Your task to perform on an android device: What's the news in Trinidad and Tobago? Image 0: 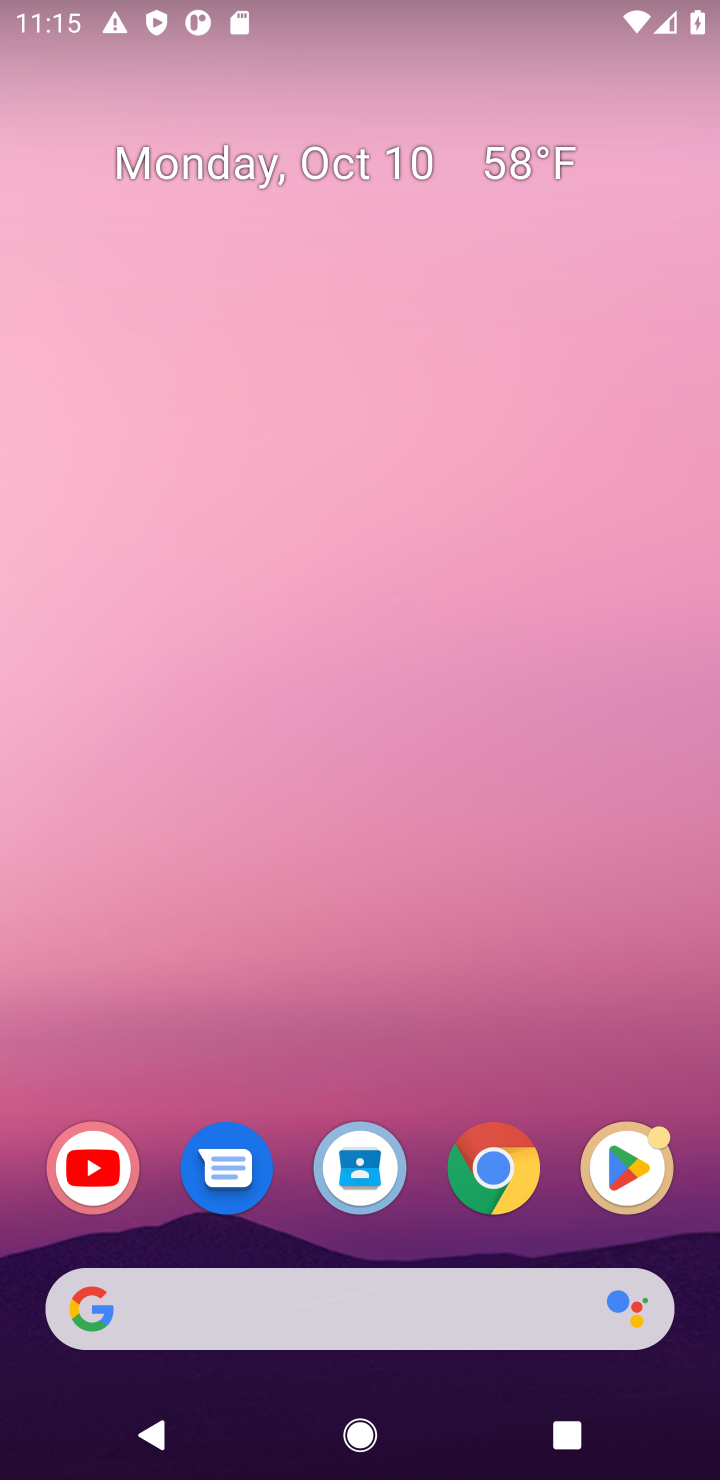
Step 0: click (264, 1315)
Your task to perform on an android device: What's the news in Trinidad and Tobago? Image 1: 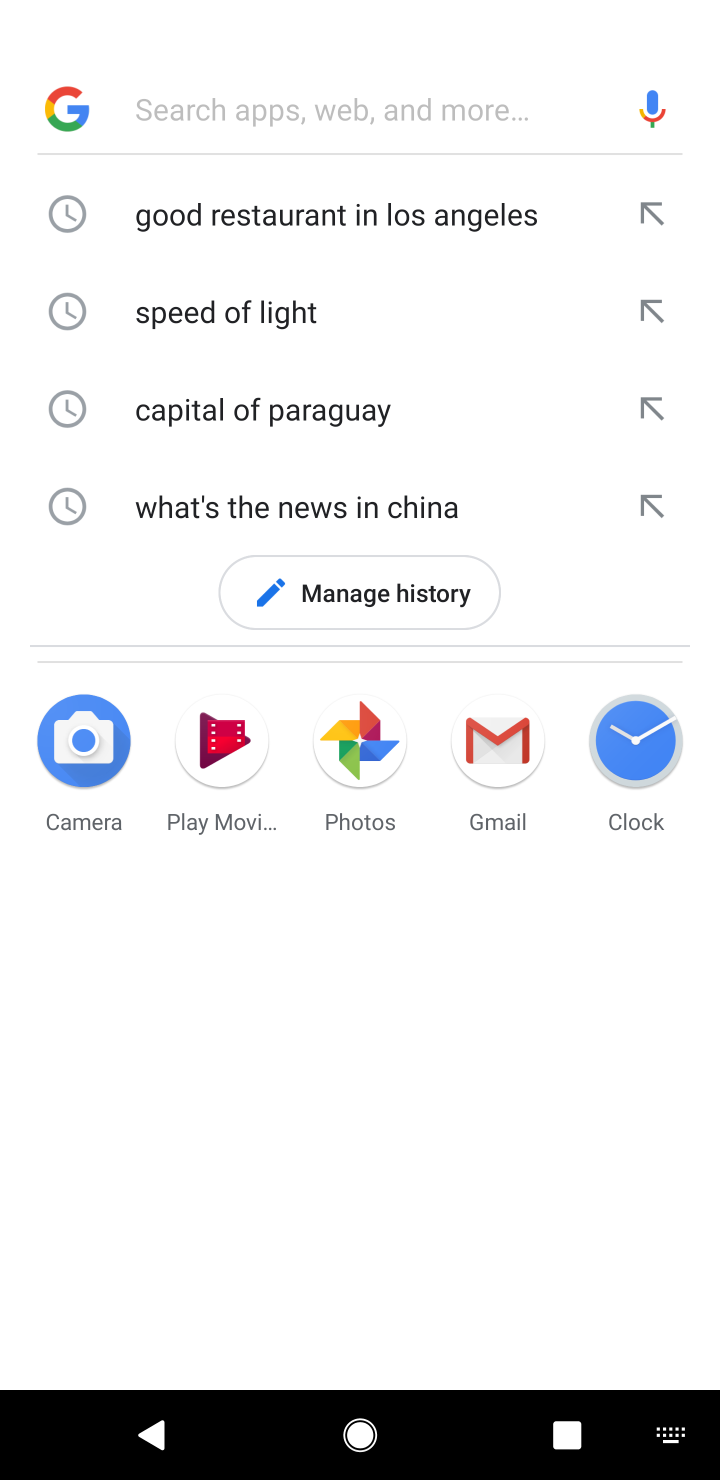
Step 1: type "news in Trinidad and Tobago"
Your task to perform on an android device: What's the news in Trinidad and Tobago? Image 2: 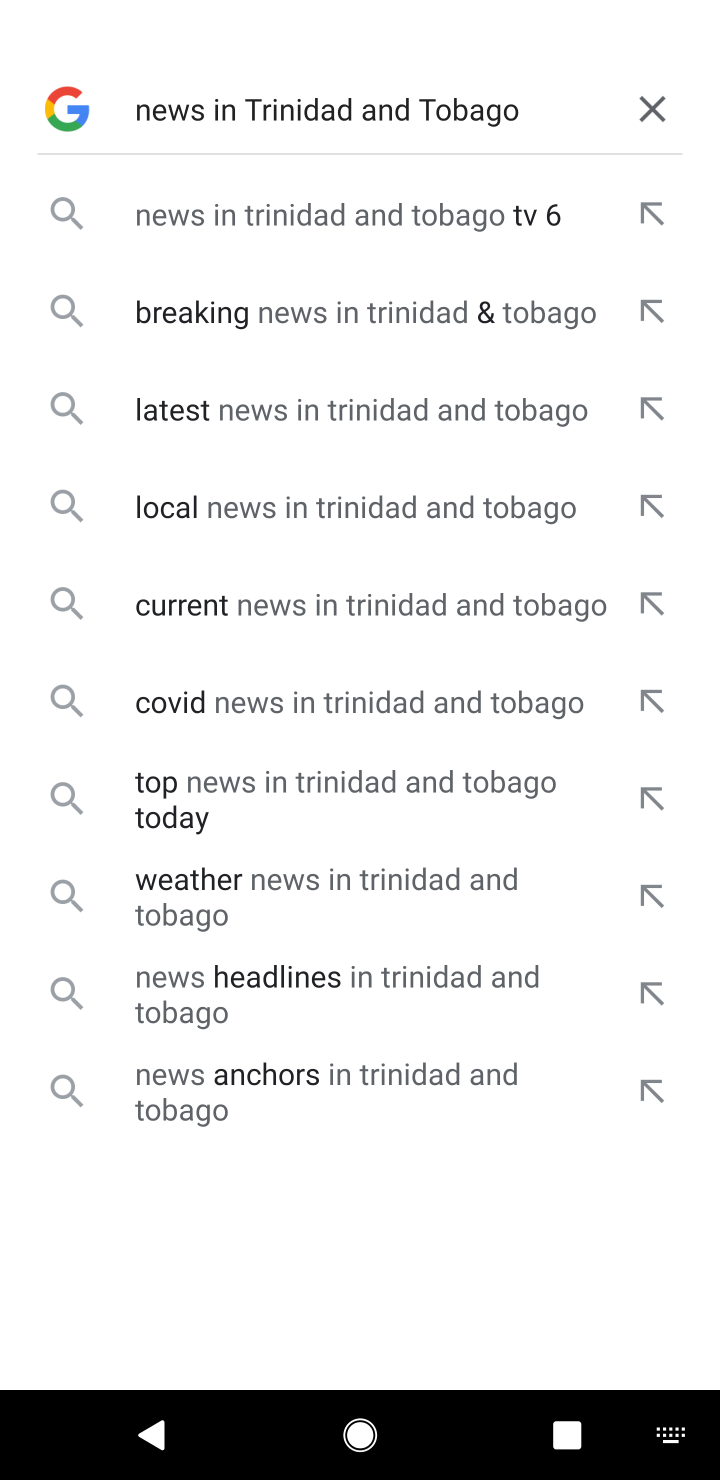
Step 2: type ""
Your task to perform on an android device: What's the news in Trinidad and Tobago? Image 3: 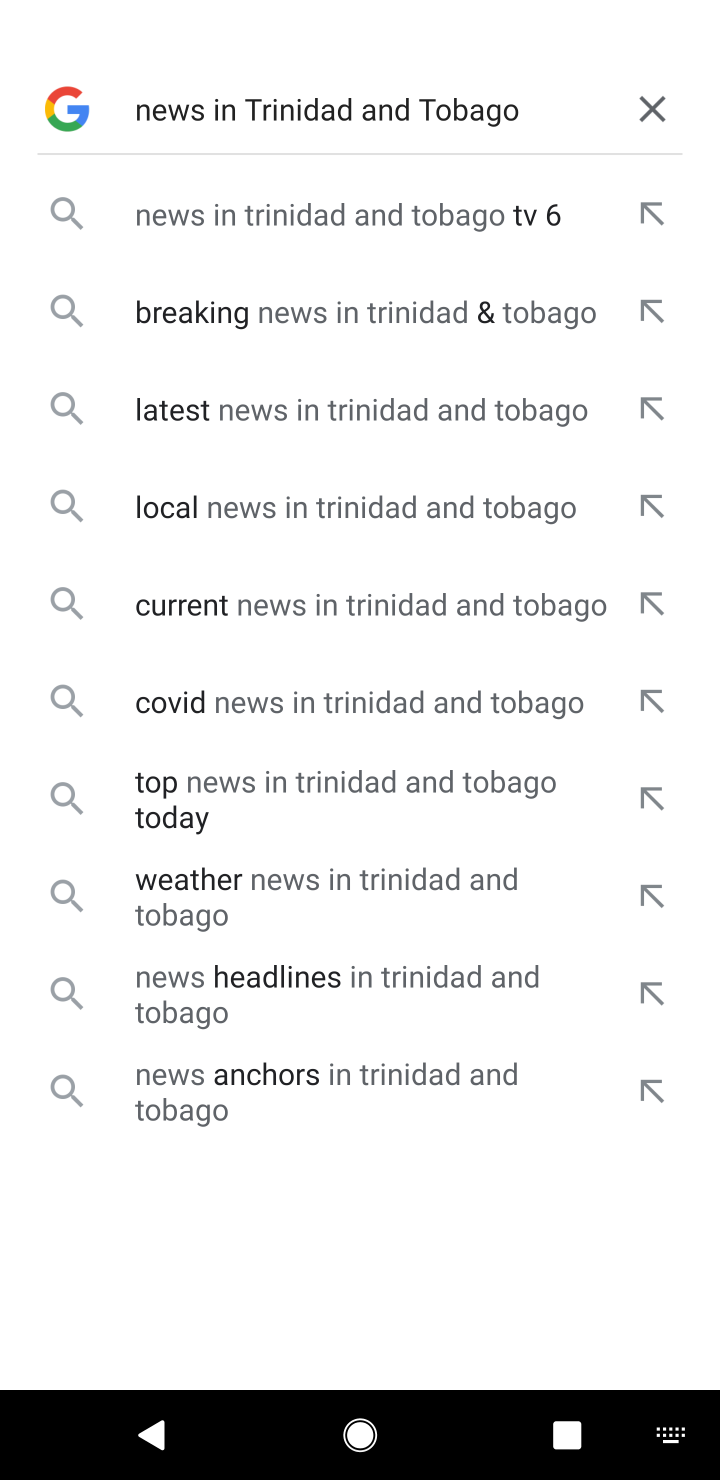
Step 3: click (197, 226)
Your task to perform on an android device: What's the news in Trinidad and Tobago? Image 4: 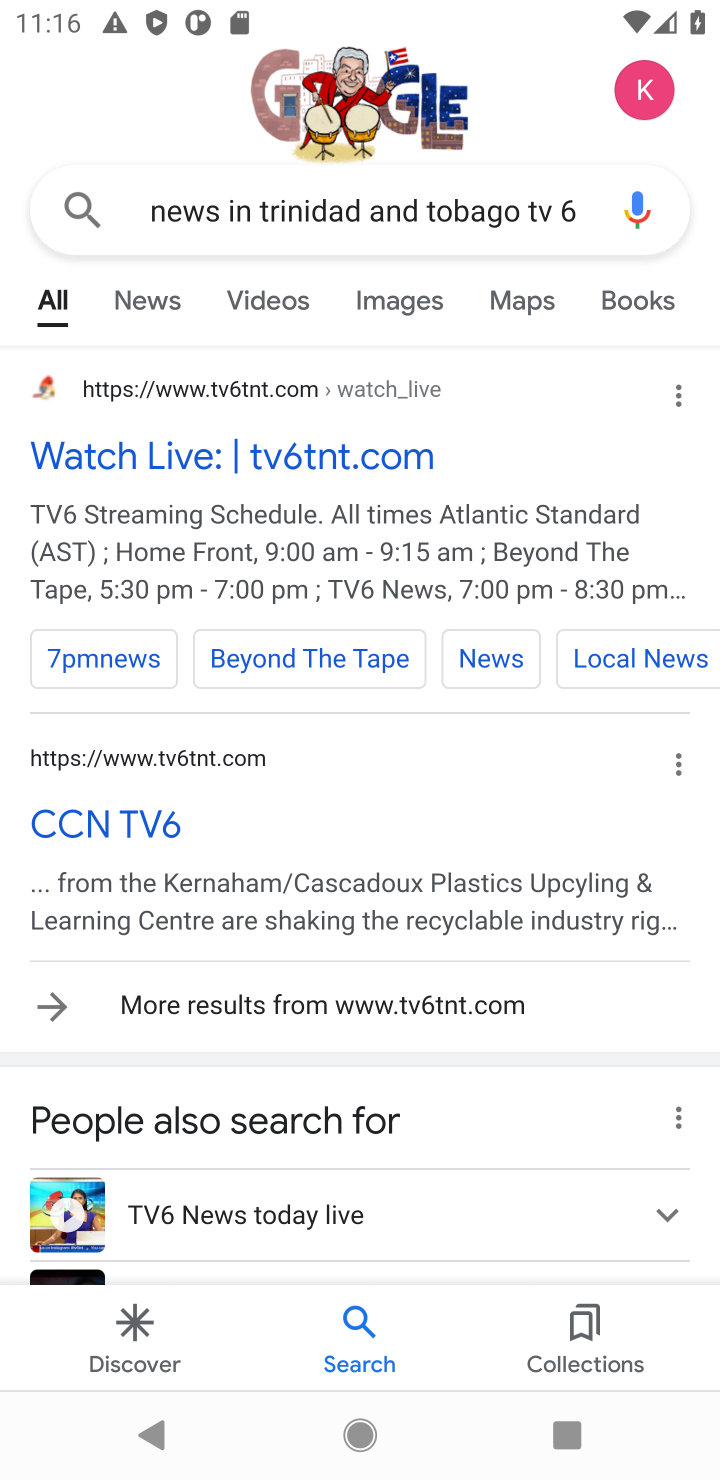
Step 4: click (143, 321)
Your task to perform on an android device: What's the news in Trinidad and Tobago? Image 5: 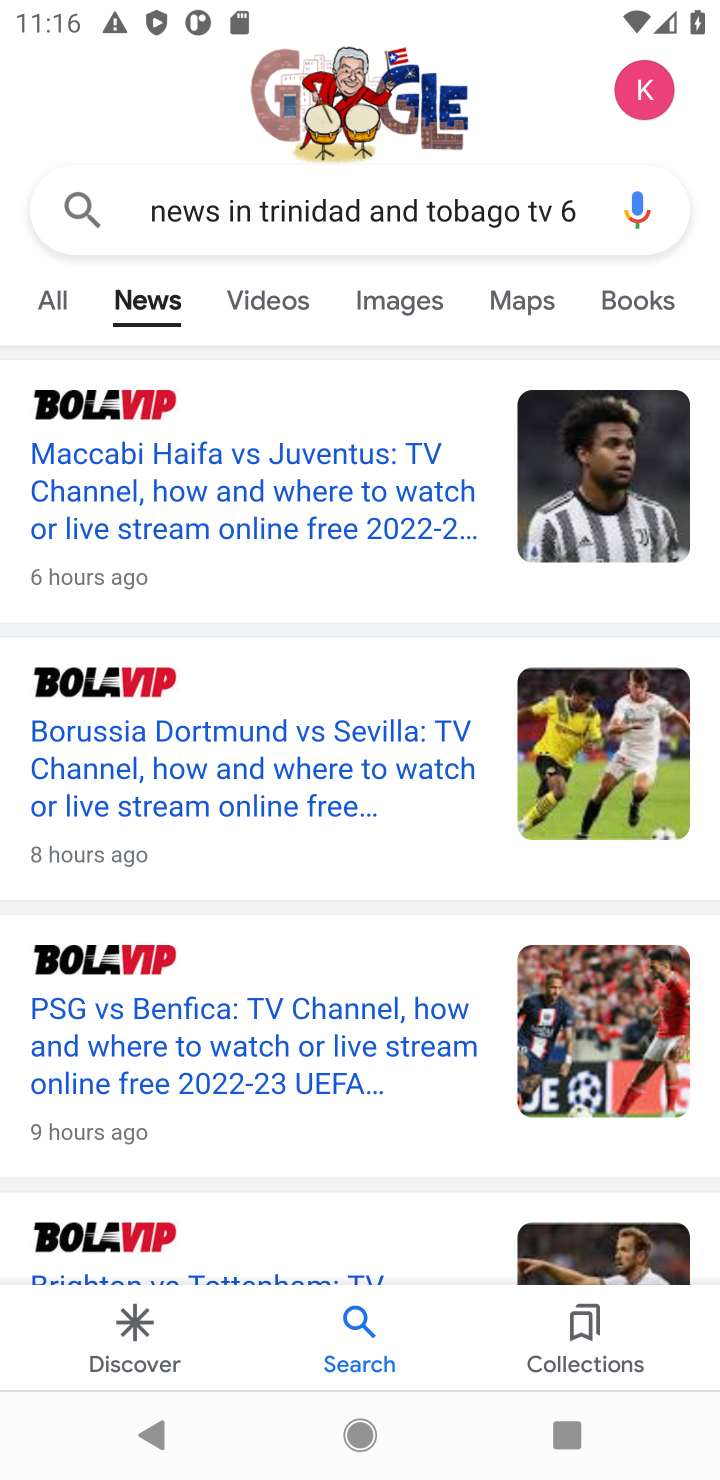
Step 5: task complete